Your task to perform on an android device: turn off javascript in the chrome app Image 0: 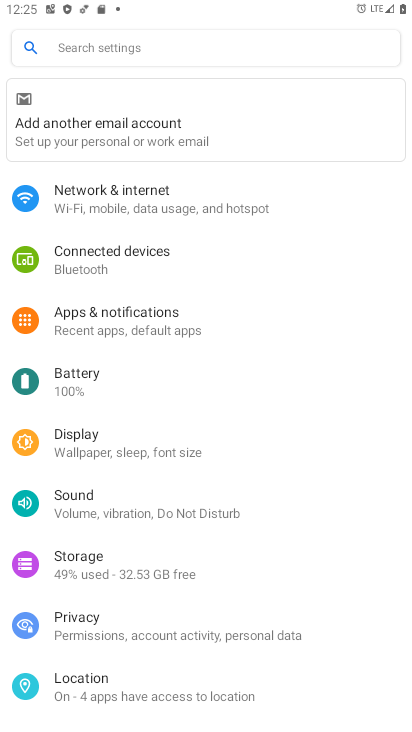
Step 0: press home button
Your task to perform on an android device: turn off javascript in the chrome app Image 1: 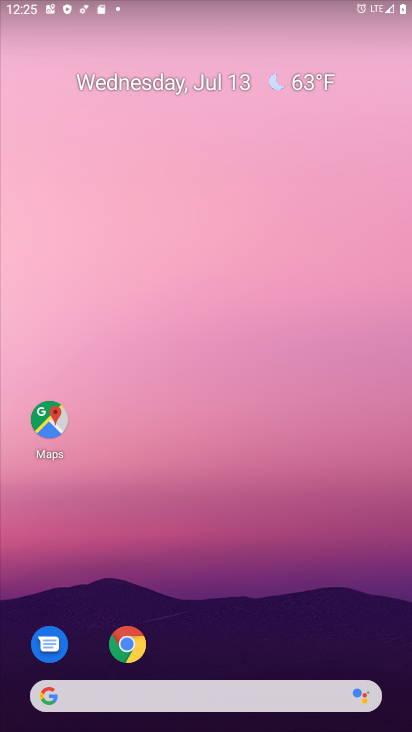
Step 1: click (127, 644)
Your task to perform on an android device: turn off javascript in the chrome app Image 2: 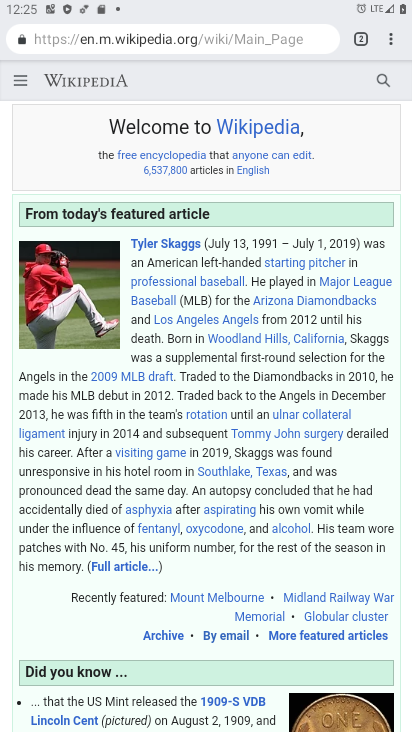
Step 2: click (391, 40)
Your task to perform on an android device: turn off javascript in the chrome app Image 3: 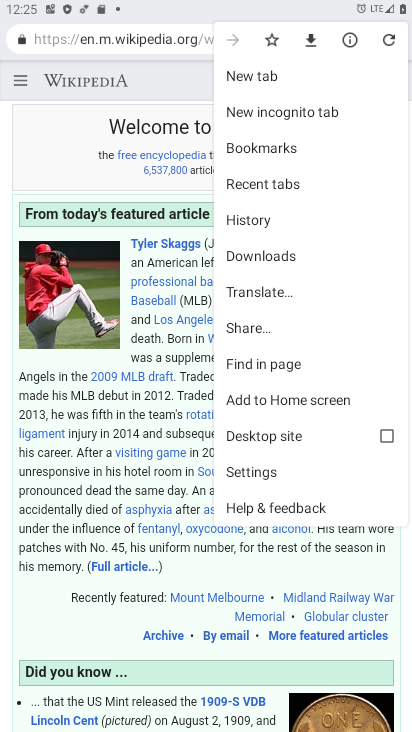
Step 3: click (262, 469)
Your task to perform on an android device: turn off javascript in the chrome app Image 4: 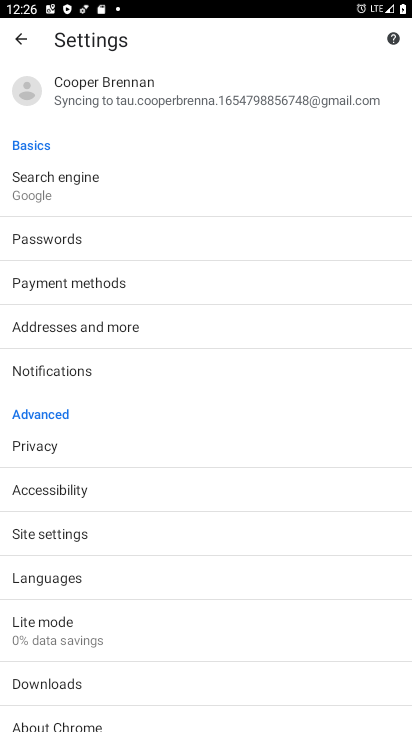
Step 4: drag from (103, 582) to (153, 514)
Your task to perform on an android device: turn off javascript in the chrome app Image 5: 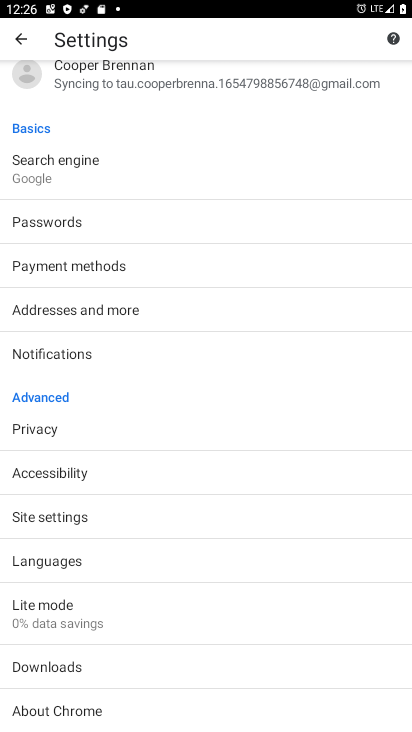
Step 5: click (72, 518)
Your task to perform on an android device: turn off javascript in the chrome app Image 6: 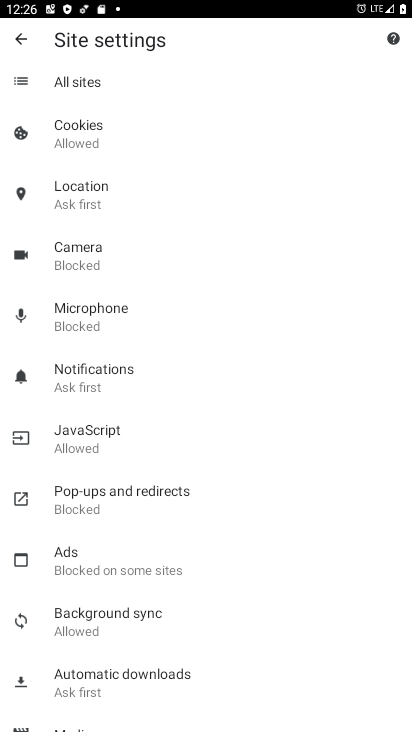
Step 6: click (99, 442)
Your task to perform on an android device: turn off javascript in the chrome app Image 7: 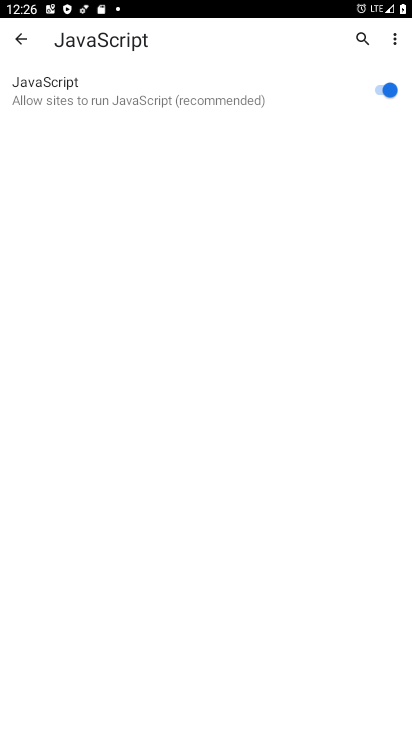
Step 7: click (381, 85)
Your task to perform on an android device: turn off javascript in the chrome app Image 8: 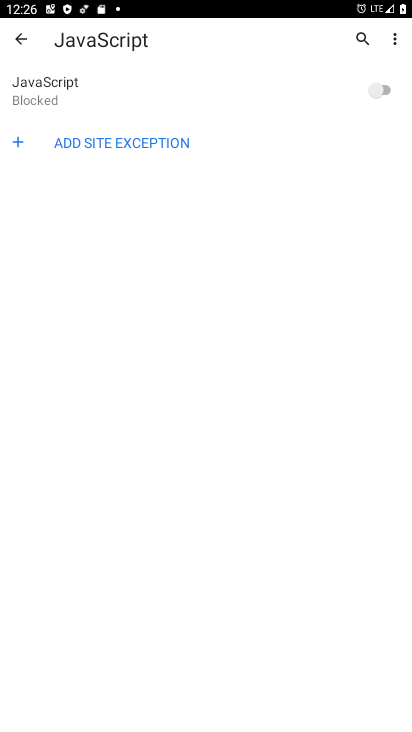
Step 8: task complete